Your task to perform on an android device: What's the weather? Image 0: 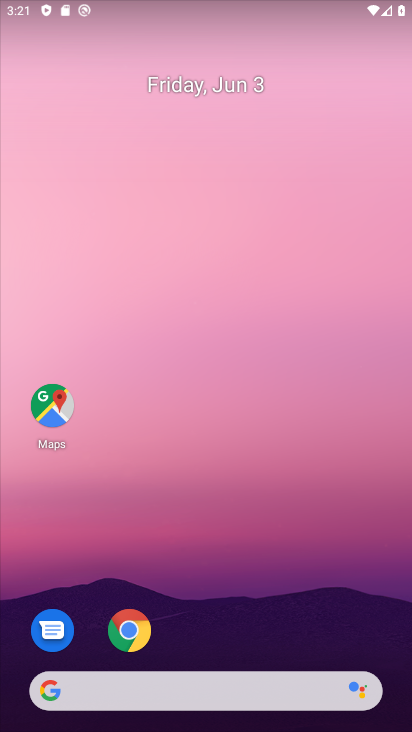
Step 0: drag from (56, 248) to (407, 356)
Your task to perform on an android device: What's the weather? Image 1: 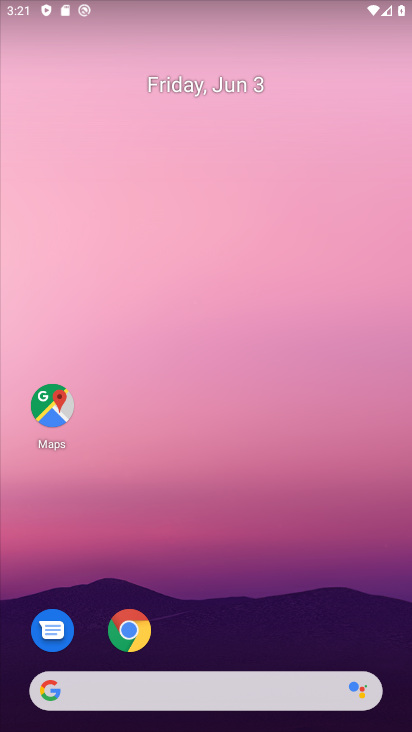
Step 1: drag from (85, 184) to (344, 268)
Your task to perform on an android device: What's the weather? Image 2: 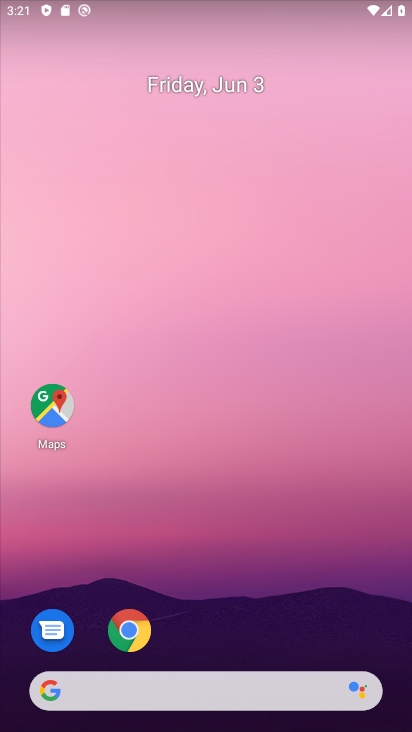
Step 2: drag from (79, 219) to (409, 423)
Your task to perform on an android device: What's the weather? Image 3: 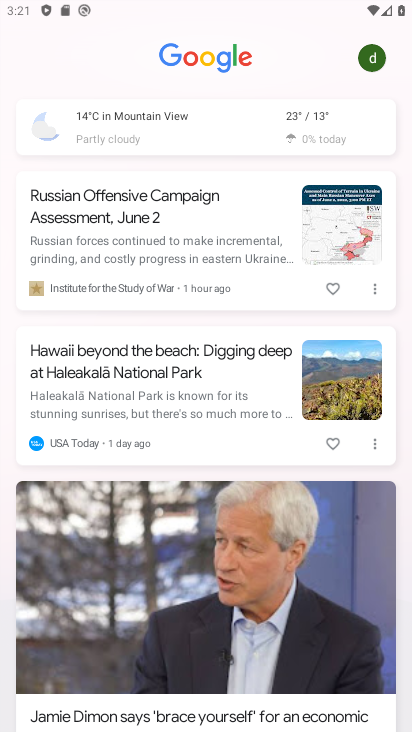
Step 3: click (131, 126)
Your task to perform on an android device: What's the weather? Image 4: 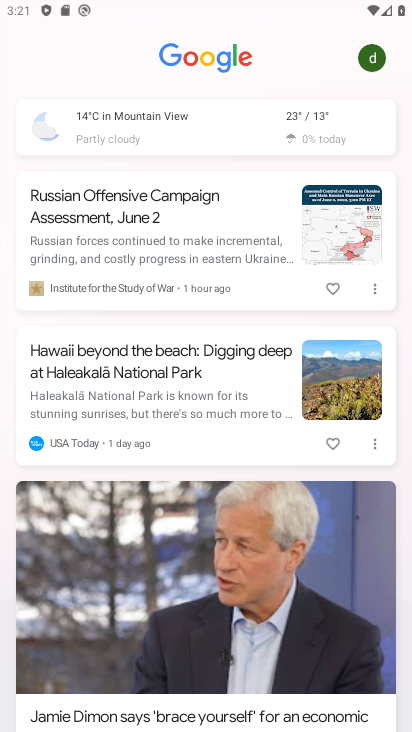
Step 4: click (134, 134)
Your task to perform on an android device: What's the weather? Image 5: 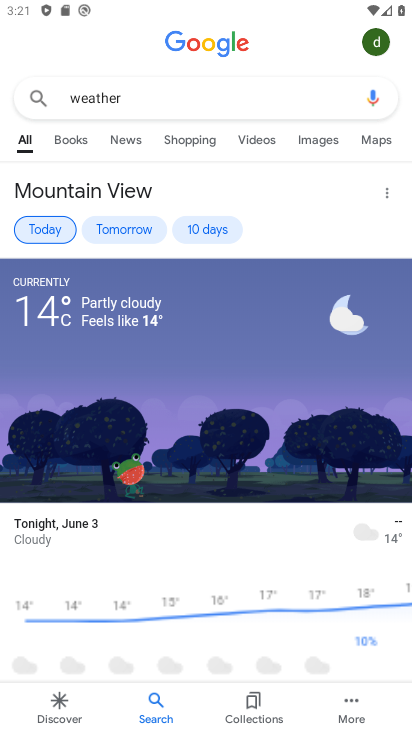
Step 5: task complete